Your task to perform on an android device: turn off improve location accuracy Image 0: 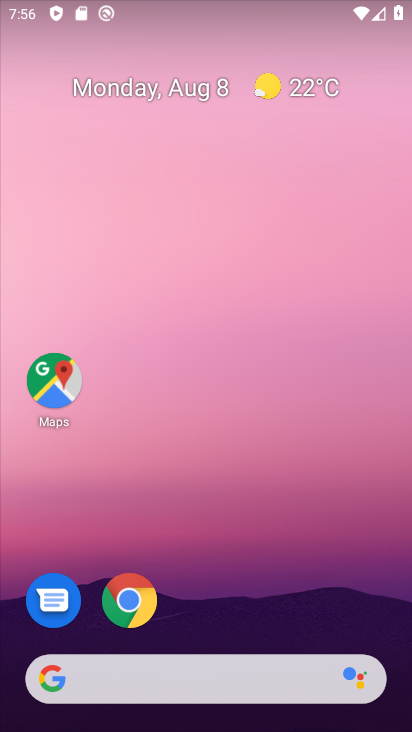
Step 0: drag from (220, 636) to (225, 0)
Your task to perform on an android device: turn off improve location accuracy Image 1: 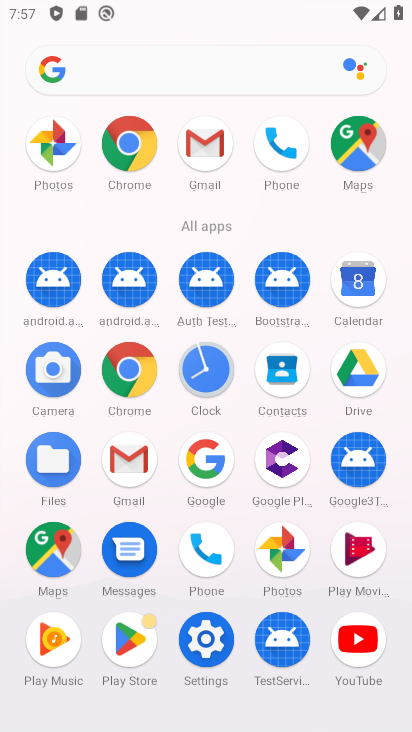
Step 1: click (214, 643)
Your task to perform on an android device: turn off improve location accuracy Image 2: 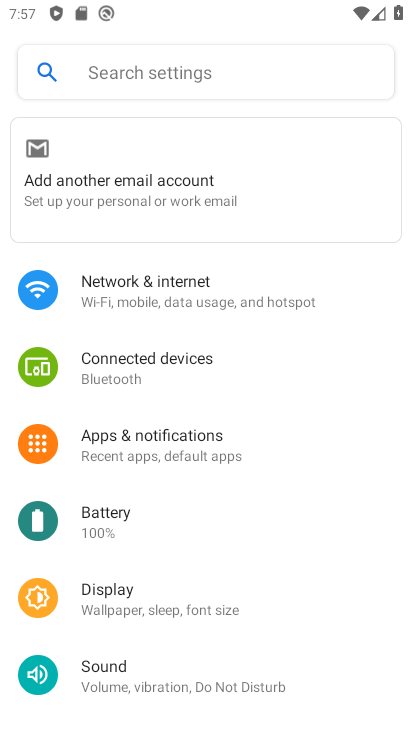
Step 2: drag from (206, 594) to (178, 174)
Your task to perform on an android device: turn off improve location accuracy Image 3: 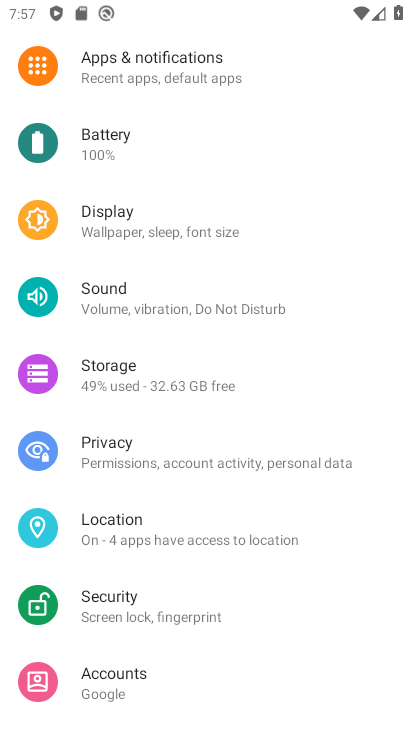
Step 3: click (201, 531)
Your task to perform on an android device: turn off improve location accuracy Image 4: 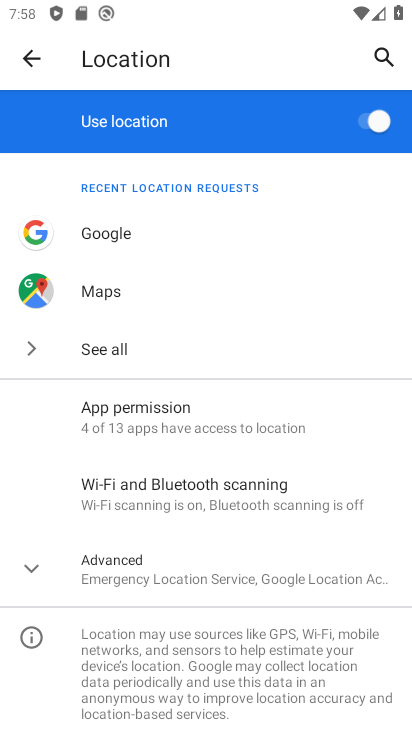
Step 4: click (157, 550)
Your task to perform on an android device: turn off improve location accuracy Image 5: 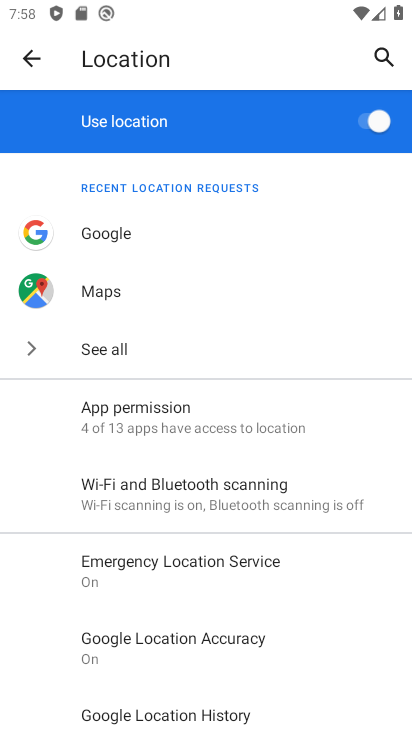
Step 5: click (179, 644)
Your task to perform on an android device: turn off improve location accuracy Image 6: 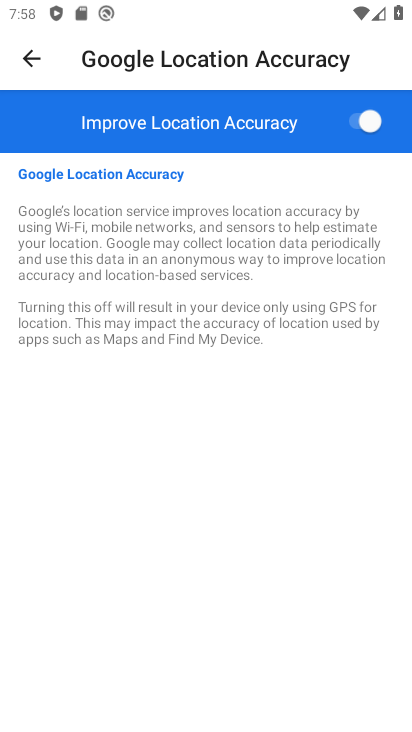
Step 6: click (366, 117)
Your task to perform on an android device: turn off improve location accuracy Image 7: 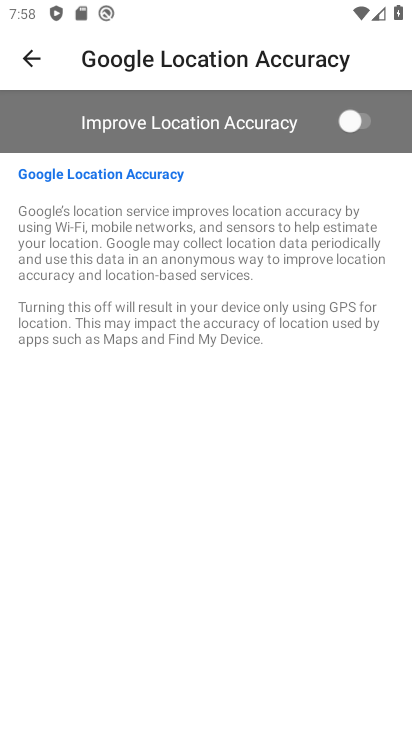
Step 7: task complete